Your task to perform on an android device: check battery use Image 0: 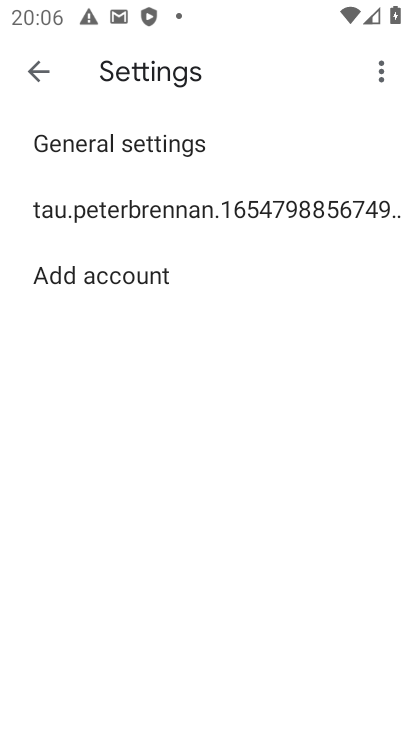
Step 0: press home button
Your task to perform on an android device: check battery use Image 1: 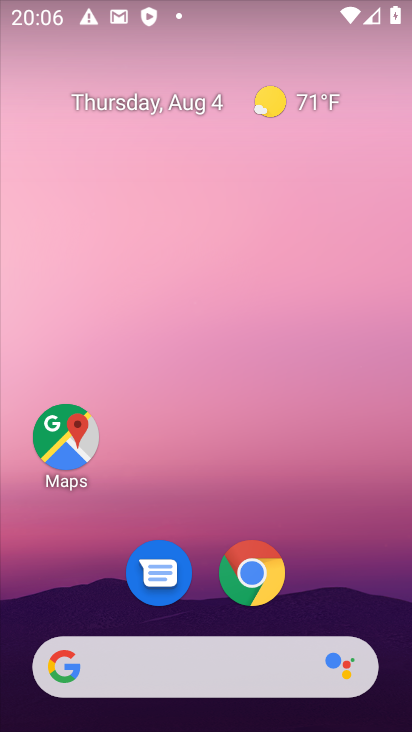
Step 1: drag from (233, 654) to (203, 12)
Your task to perform on an android device: check battery use Image 2: 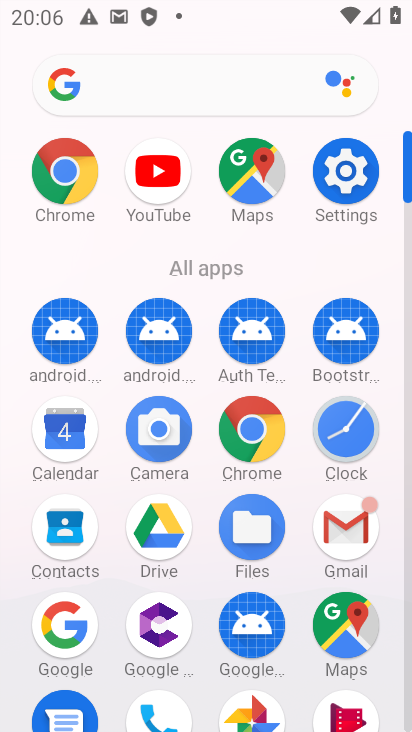
Step 2: click (337, 190)
Your task to perform on an android device: check battery use Image 3: 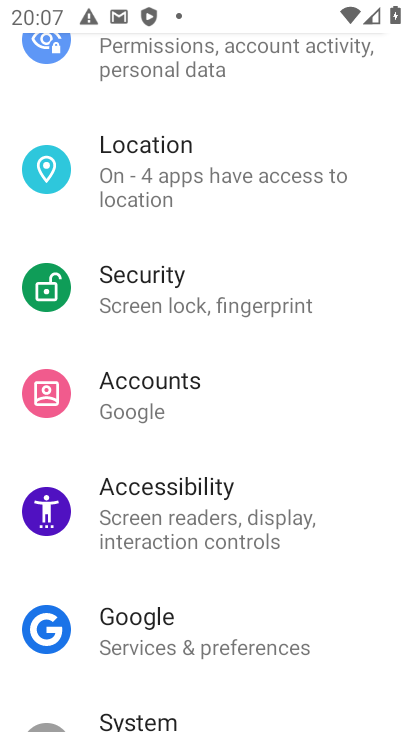
Step 3: drag from (171, 373) to (175, 618)
Your task to perform on an android device: check battery use Image 4: 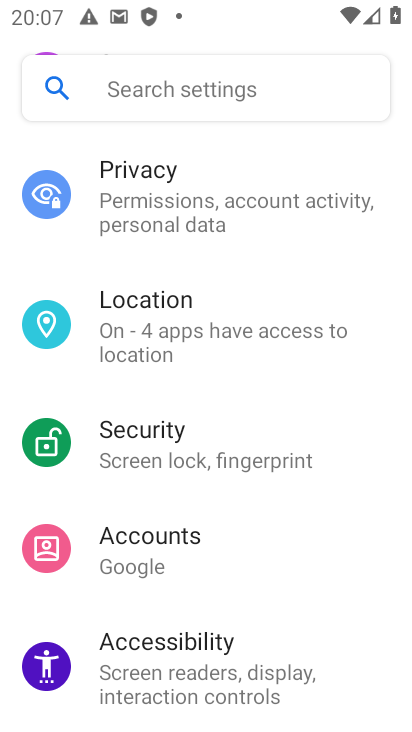
Step 4: drag from (214, 263) to (104, 722)
Your task to perform on an android device: check battery use Image 5: 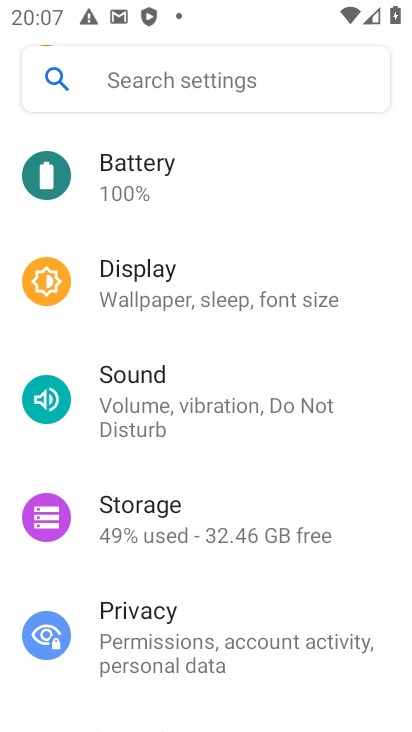
Step 5: click (129, 195)
Your task to perform on an android device: check battery use Image 6: 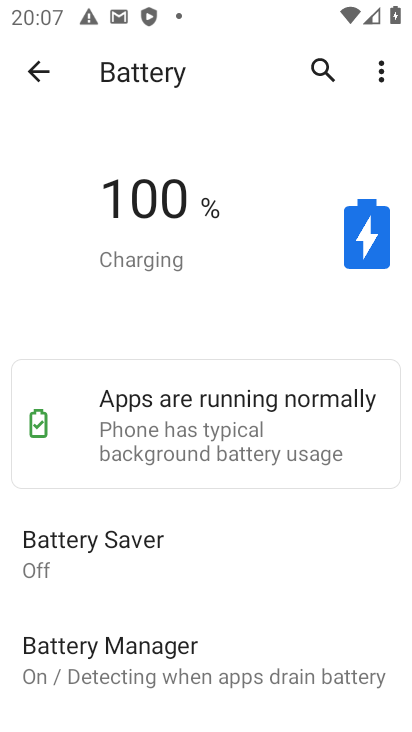
Step 6: click (388, 63)
Your task to perform on an android device: check battery use Image 7: 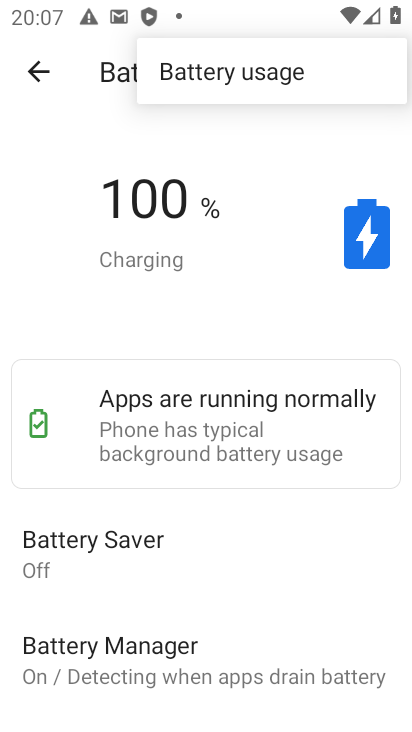
Step 7: click (237, 81)
Your task to perform on an android device: check battery use Image 8: 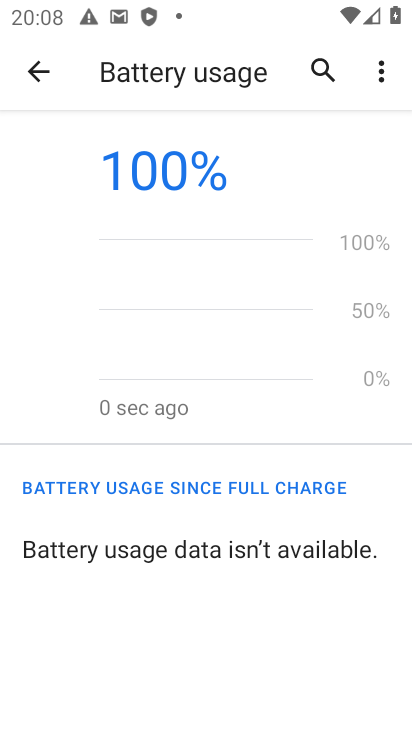
Step 8: task complete